Your task to perform on an android device: show emergency info Image 0: 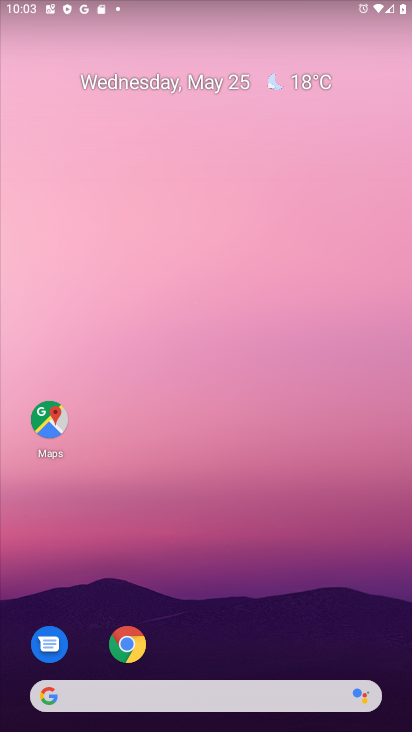
Step 0: press home button
Your task to perform on an android device: show emergency info Image 1: 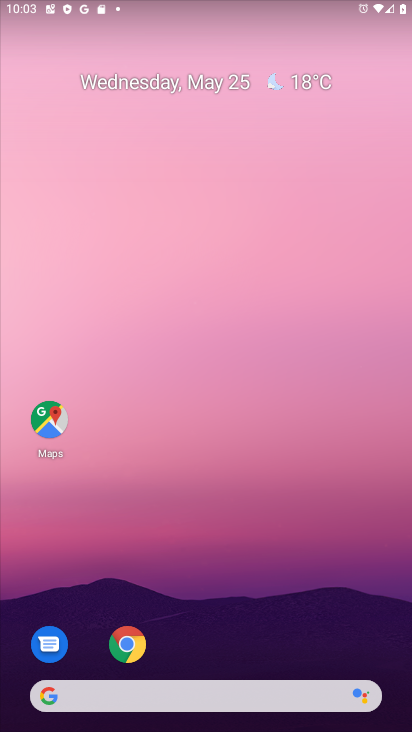
Step 1: drag from (218, 646) to (214, 36)
Your task to perform on an android device: show emergency info Image 2: 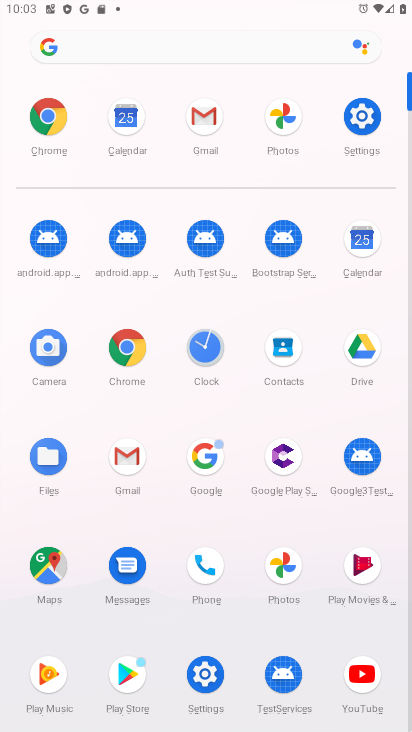
Step 2: click (359, 110)
Your task to perform on an android device: show emergency info Image 3: 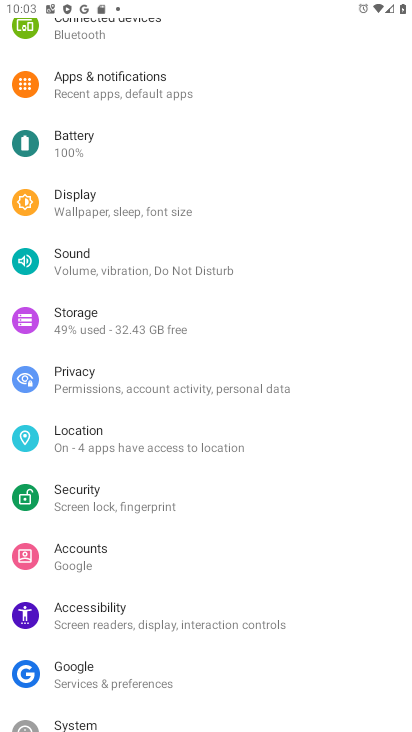
Step 3: drag from (203, 677) to (222, 100)
Your task to perform on an android device: show emergency info Image 4: 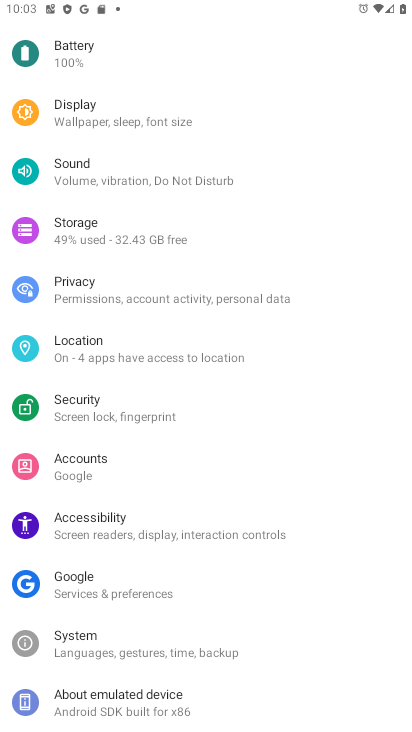
Step 4: click (201, 699)
Your task to perform on an android device: show emergency info Image 5: 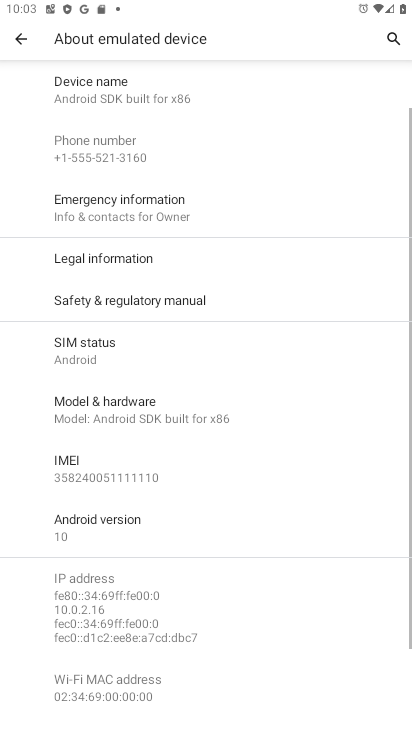
Step 5: click (202, 199)
Your task to perform on an android device: show emergency info Image 6: 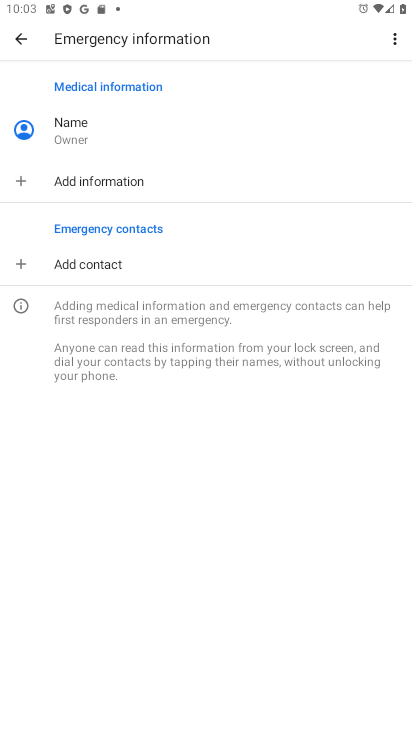
Step 6: task complete